Your task to perform on an android device: find snoozed emails in the gmail app Image 0: 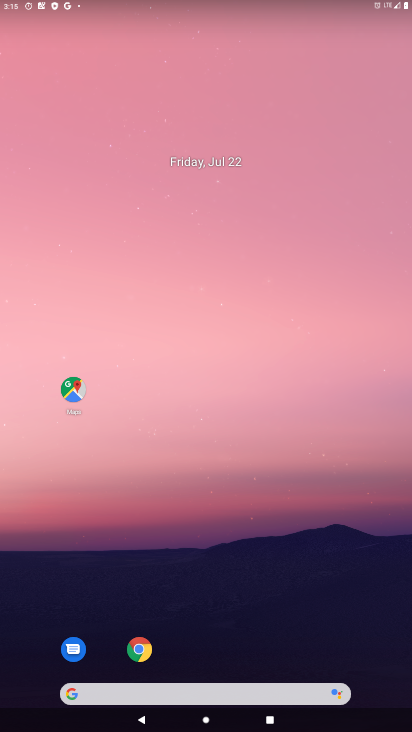
Step 0: drag from (266, 584) to (268, 99)
Your task to perform on an android device: find snoozed emails in the gmail app Image 1: 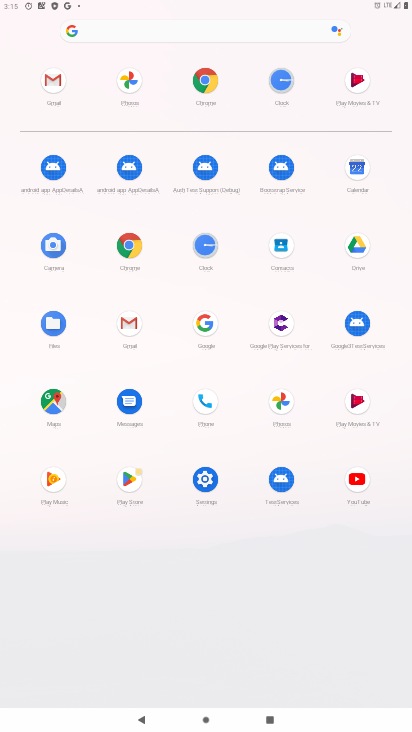
Step 1: click (126, 248)
Your task to perform on an android device: find snoozed emails in the gmail app Image 2: 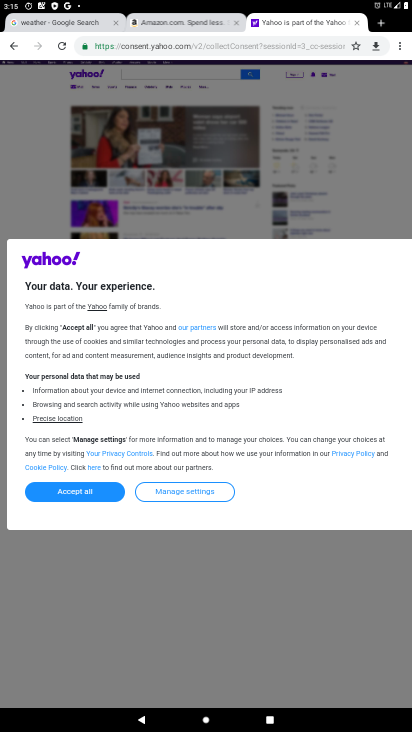
Step 2: click (230, 48)
Your task to perform on an android device: find snoozed emails in the gmail app Image 3: 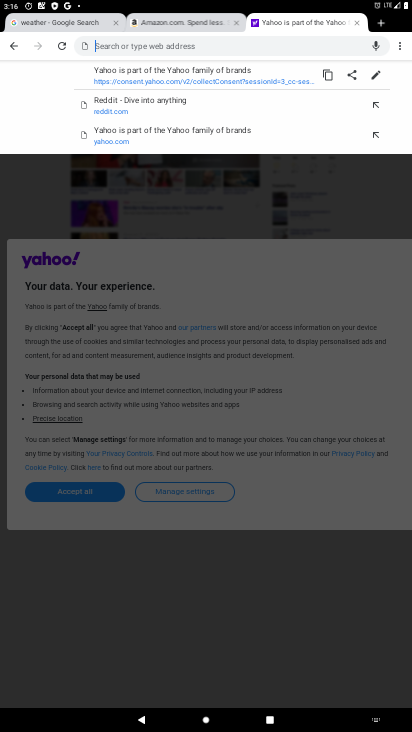
Step 3: press home button
Your task to perform on an android device: find snoozed emails in the gmail app Image 4: 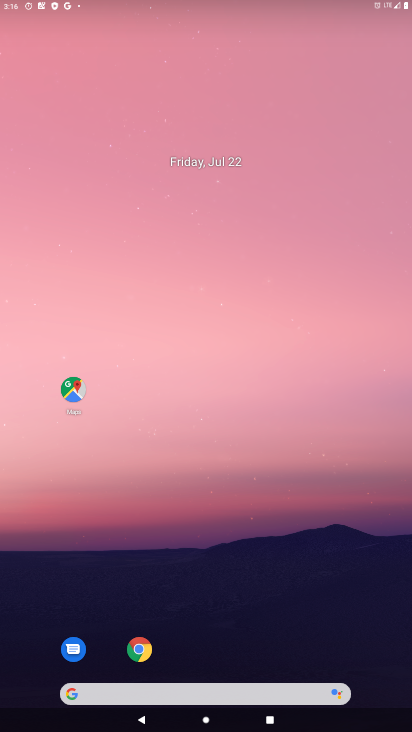
Step 4: drag from (304, 537) to (280, 36)
Your task to perform on an android device: find snoozed emails in the gmail app Image 5: 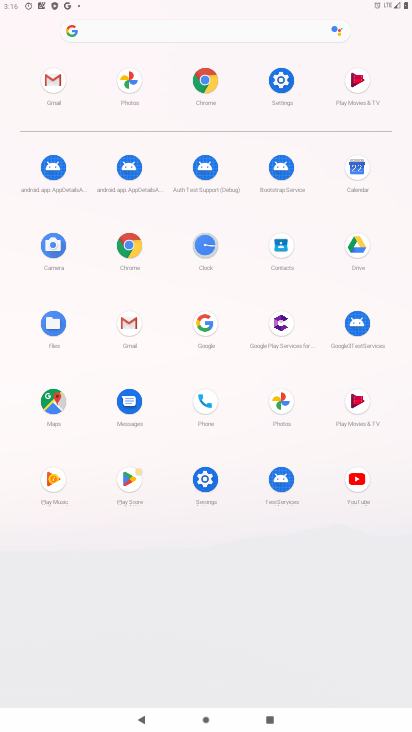
Step 5: click (44, 86)
Your task to perform on an android device: find snoozed emails in the gmail app Image 6: 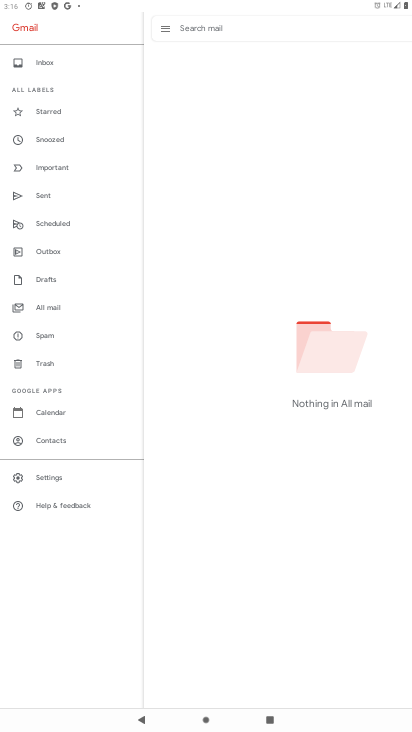
Step 6: click (54, 141)
Your task to perform on an android device: find snoozed emails in the gmail app Image 7: 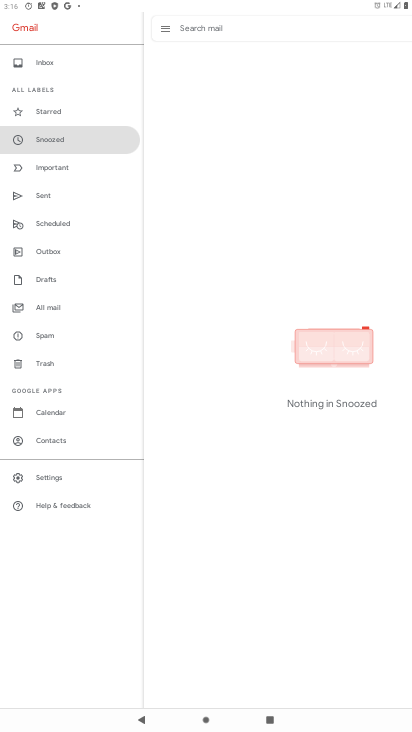
Step 7: task complete